Your task to perform on an android device: Show me popular videos on Youtube Image 0: 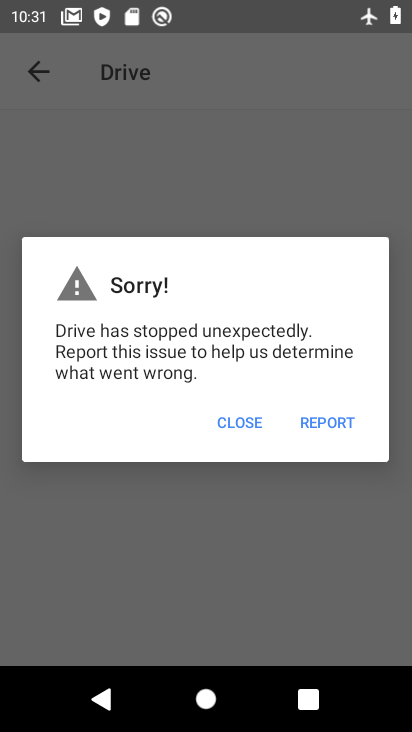
Step 0: press home button
Your task to perform on an android device: Show me popular videos on Youtube Image 1: 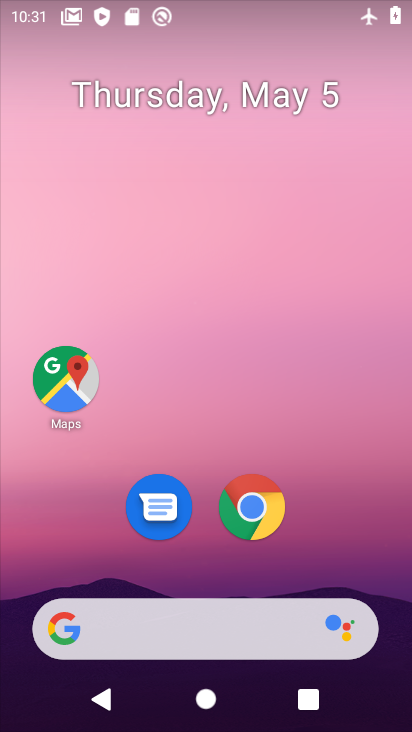
Step 1: drag from (366, 586) to (380, 8)
Your task to perform on an android device: Show me popular videos on Youtube Image 2: 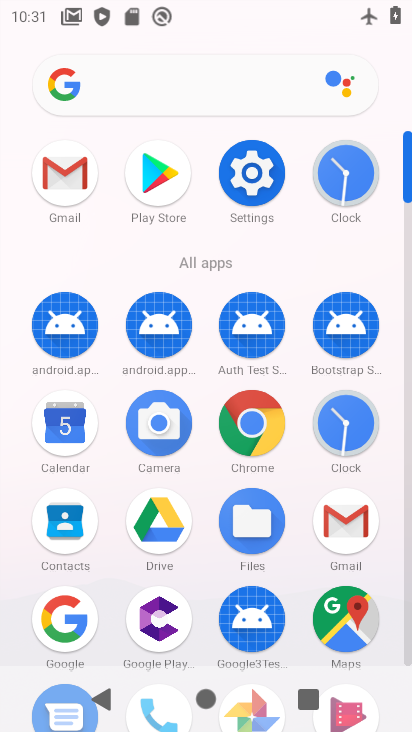
Step 2: drag from (407, 590) to (408, 552)
Your task to perform on an android device: Show me popular videos on Youtube Image 3: 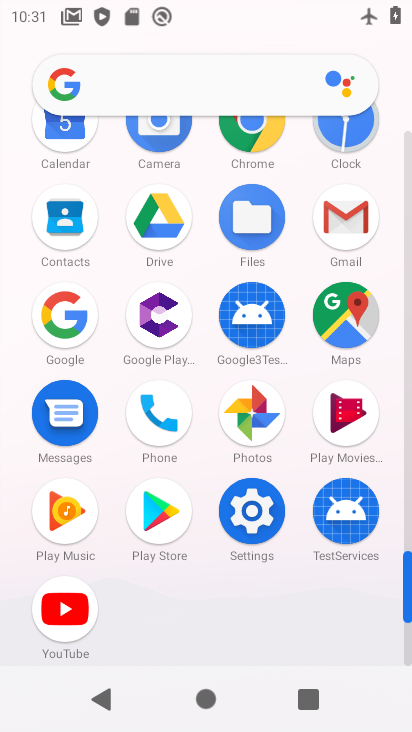
Step 3: click (52, 612)
Your task to perform on an android device: Show me popular videos on Youtube Image 4: 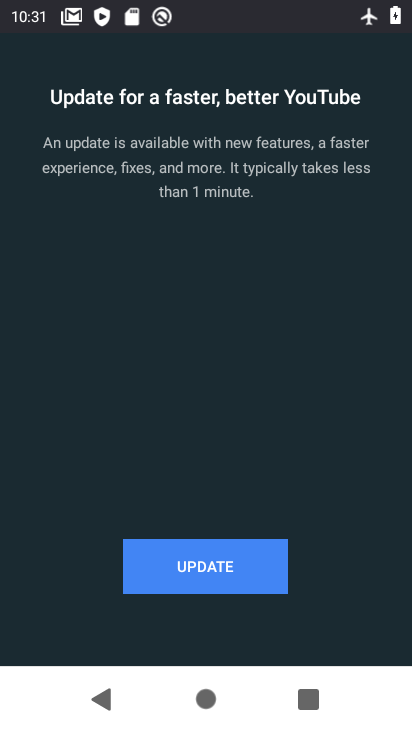
Step 4: click (208, 578)
Your task to perform on an android device: Show me popular videos on Youtube Image 5: 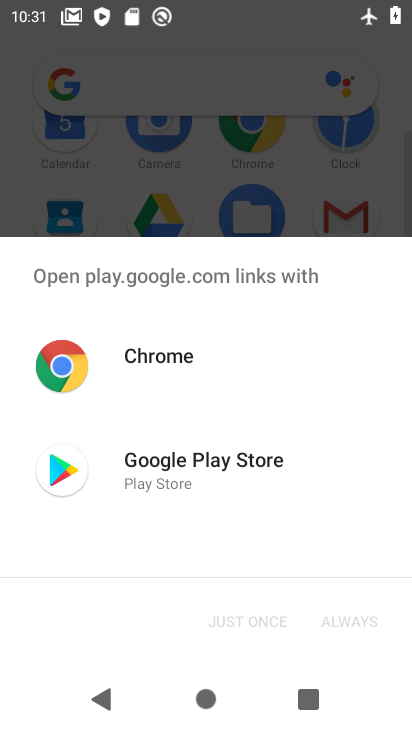
Step 5: click (116, 475)
Your task to perform on an android device: Show me popular videos on Youtube Image 6: 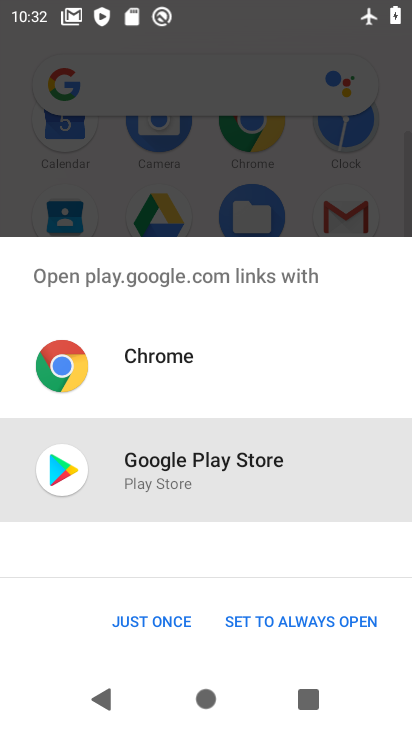
Step 6: click (161, 622)
Your task to perform on an android device: Show me popular videos on Youtube Image 7: 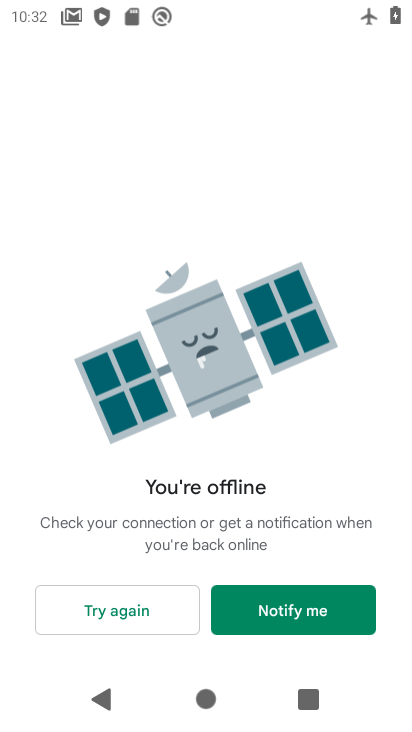
Step 7: task complete